Your task to perform on an android device: Install the Google app Image 0: 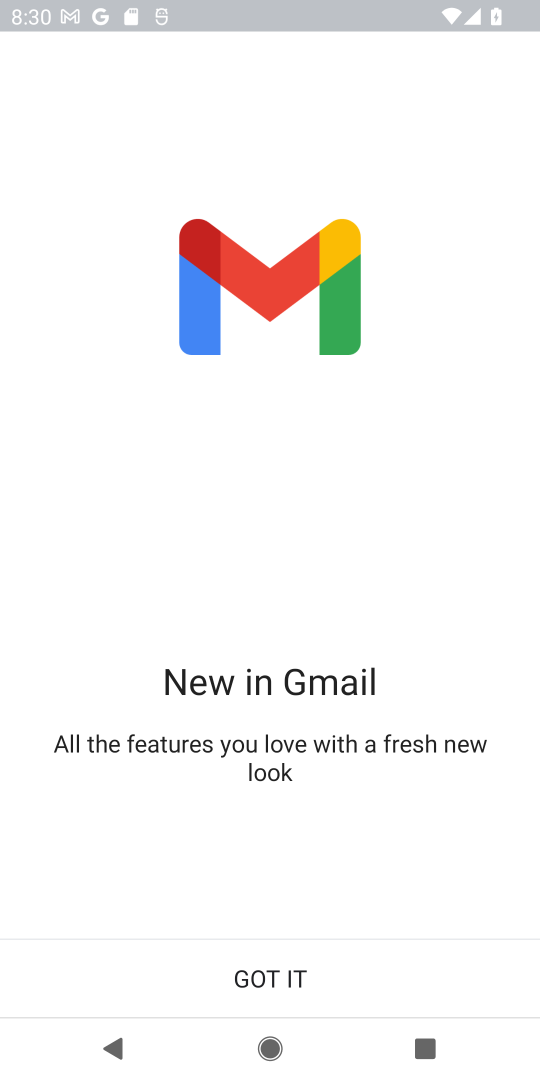
Step 0: press home button
Your task to perform on an android device: Install the Google app Image 1: 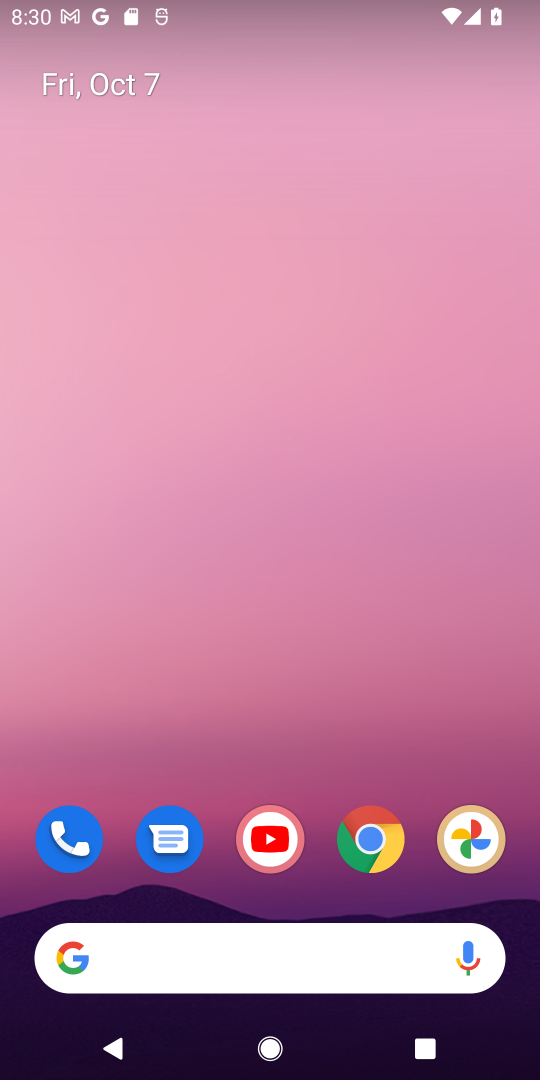
Step 1: click (364, 825)
Your task to perform on an android device: Install the Google app Image 2: 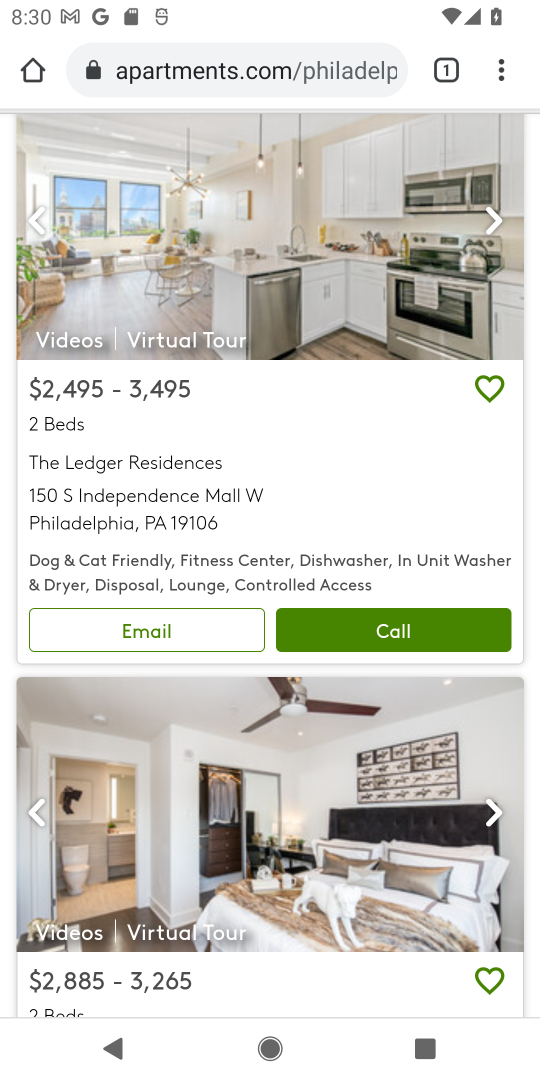
Step 2: click (265, 68)
Your task to perform on an android device: Install the Google app Image 3: 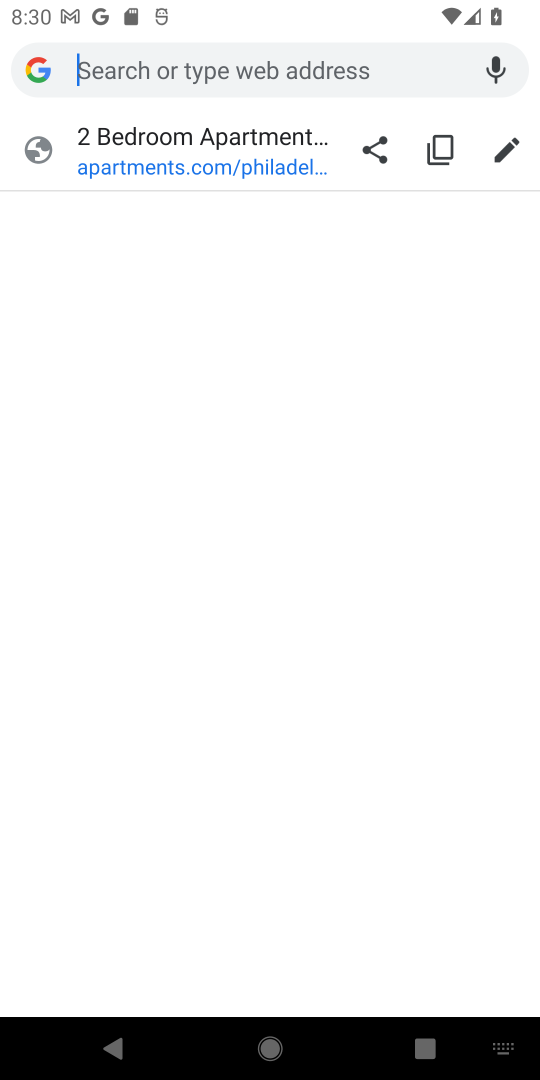
Step 3: press home button
Your task to perform on an android device: Install the Google app Image 4: 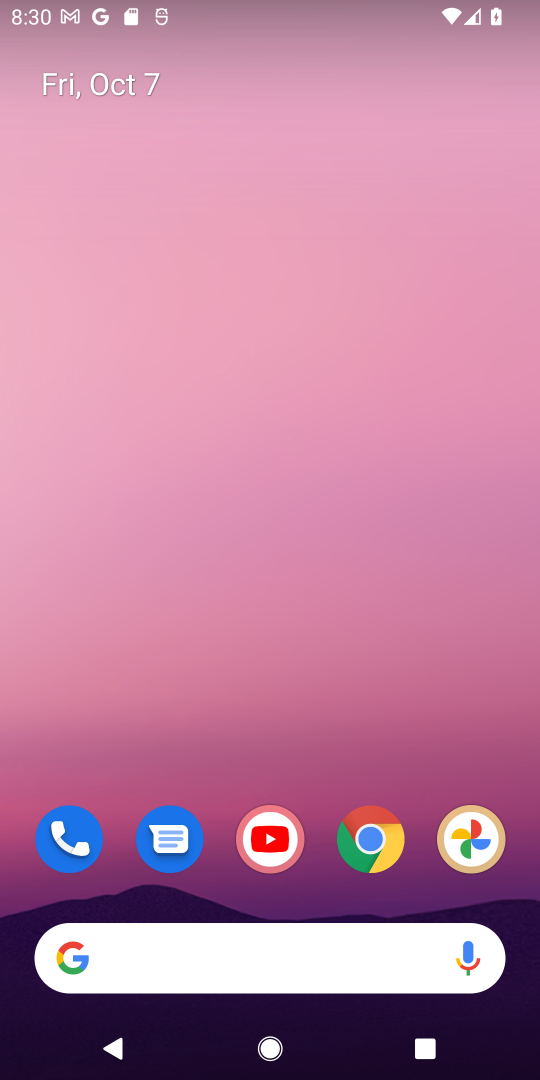
Step 4: drag from (292, 773) to (312, 291)
Your task to perform on an android device: Install the Google app Image 5: 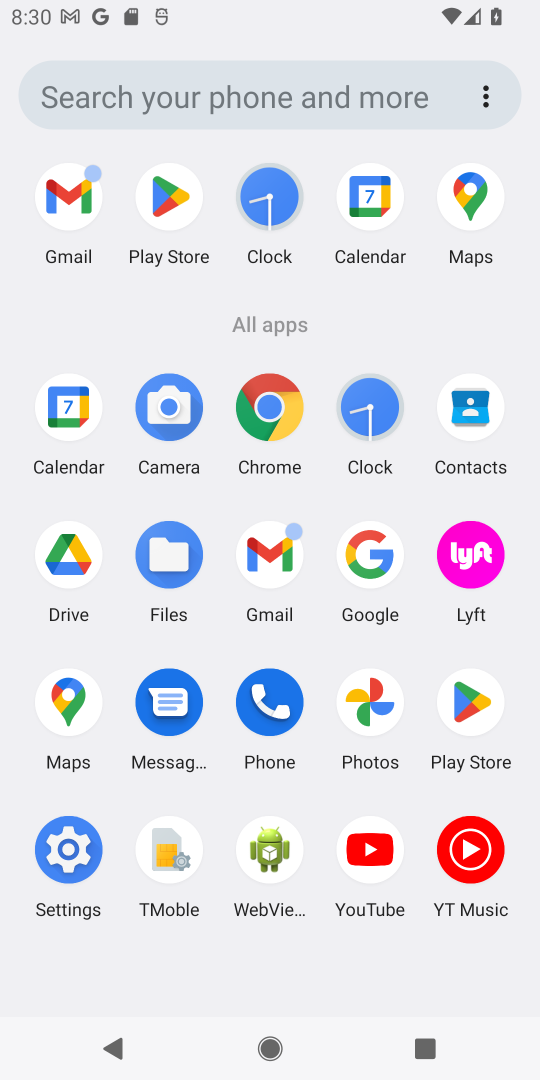
Step 5: click (446, 720)
Your task to perform on an android device: Install the Google app Image 6: 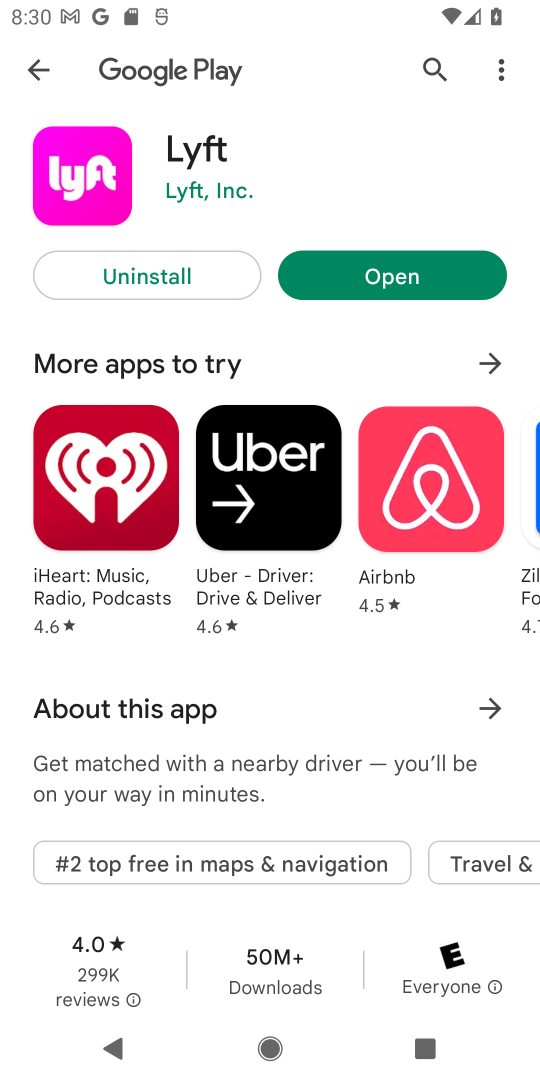
Step 6: click (422, 71)
Your task to perform on an android device: Install the Google app Image 7: 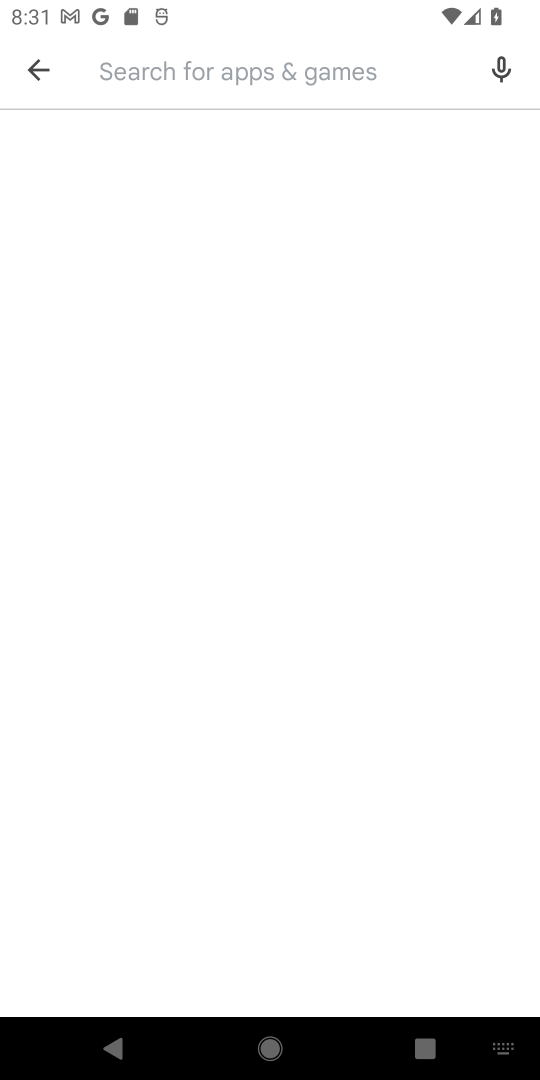
Step 7: type "goggle app"
Your task to perform on an android device: Install the Google app Image 8: 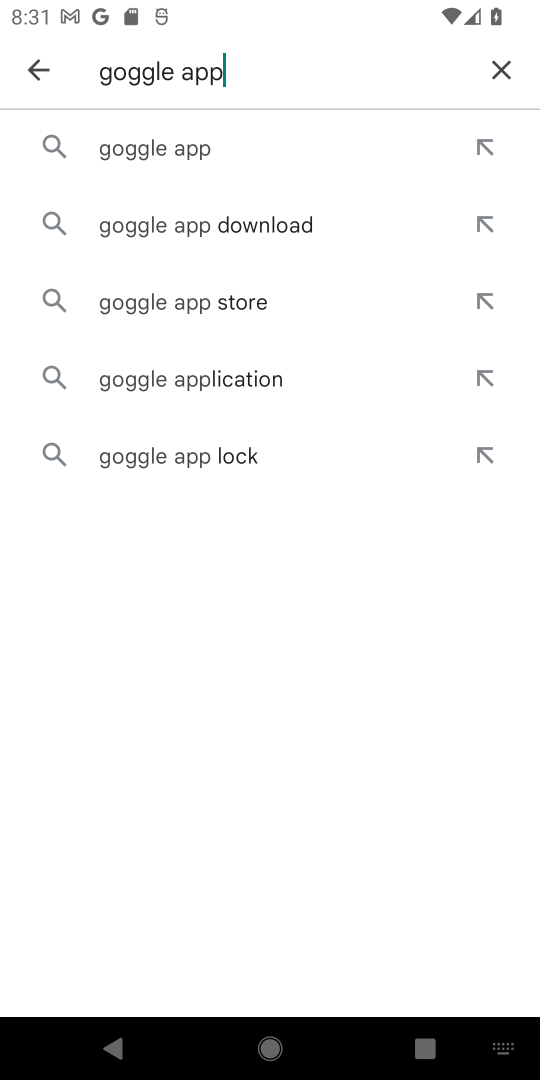
Step 8: click (202, 145)
Your task to perform on an android device: Install the Google app Image 9: 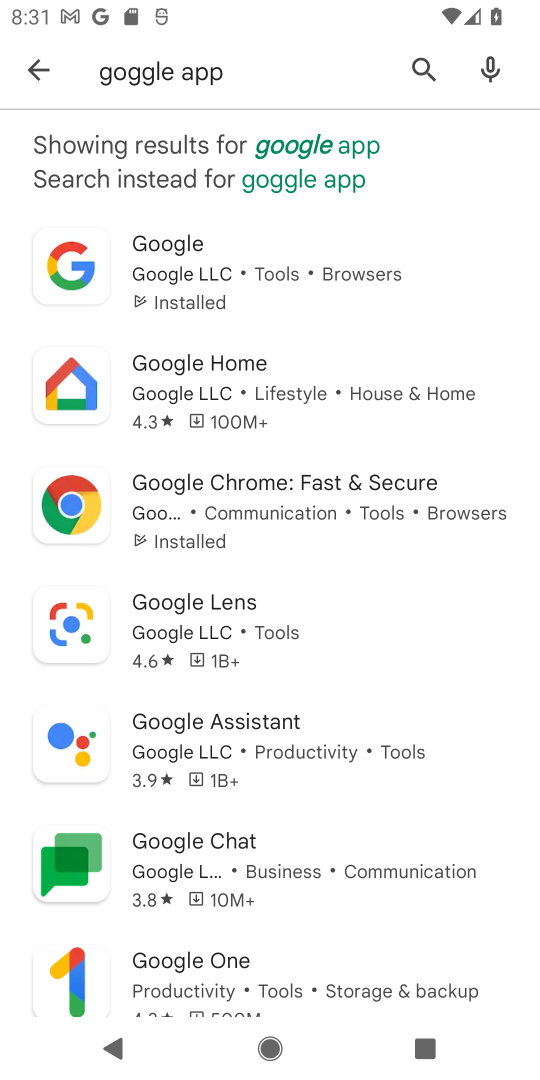
Step 9: click (174, 293)
Your task to perform on an android device: Install the Google app Image 10: 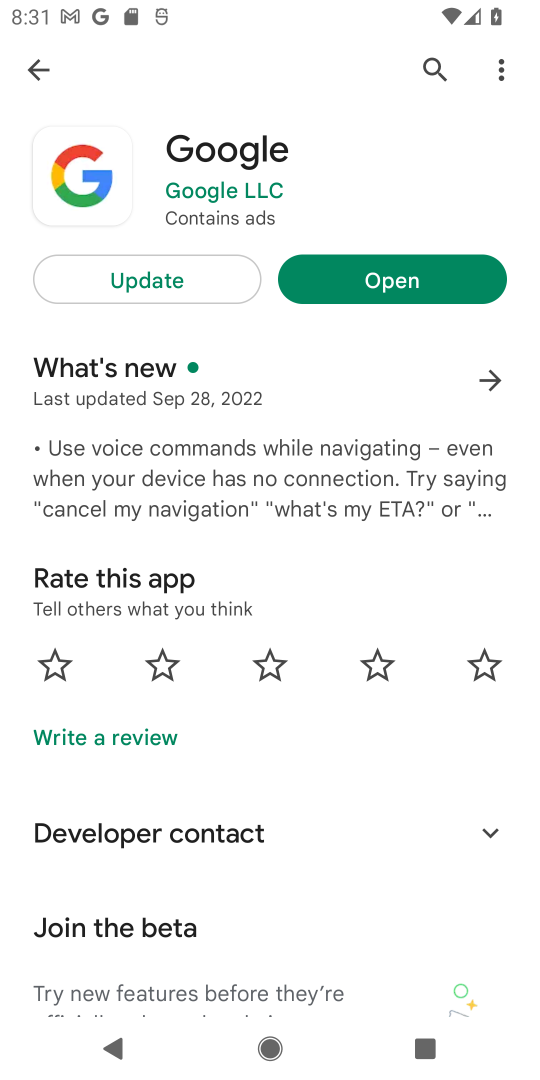
Step 10: click (376, 275)
Your task to perform on an android device: Install the Google app Image 11: 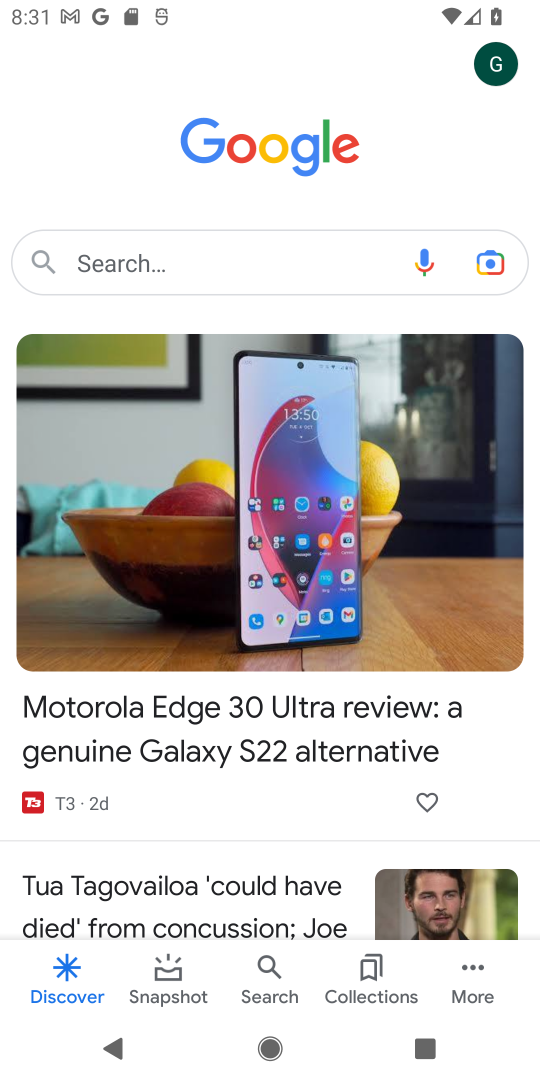
Step 11: task complete